Your task to perform on an android device: add a contact in the contacts app Image 0: 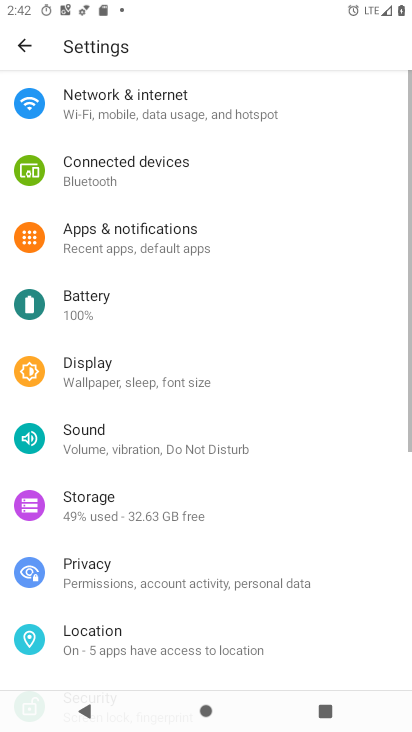
Step 0: press home button
Your task to perform on an android device: add a contact in the contacts app Image 1: 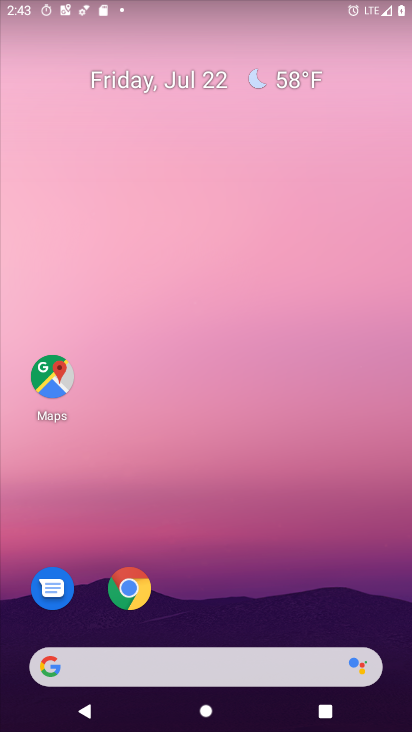
Step 1: drag from (203, 613) to (231, 23)
Your task to perform on an android device: add a contact in the contacts app Image 2: 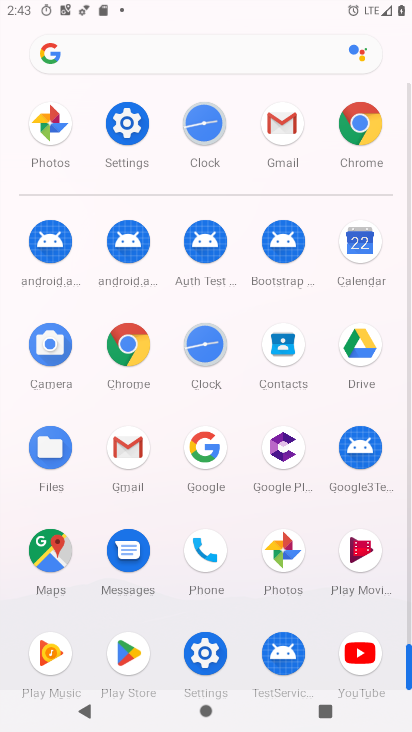
Step 2: click (274, 346)
Your task to perform on an android device: add a contact in the contacts app Image 3: 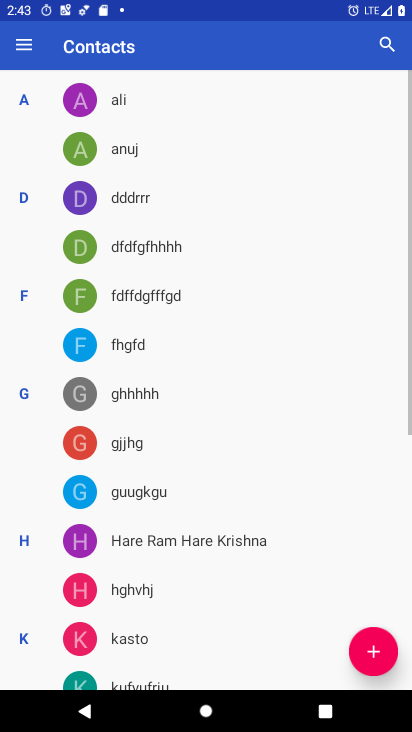
Step 3: click (389, 643)
Your task to perform on an android device: add a contact in the contacts app Image 4: 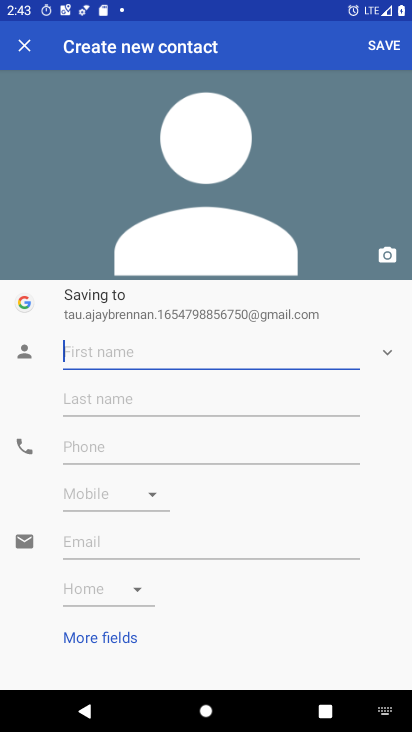
Step 4: type "nmmd"
Your task to perform on an android device: add a contact in the contacts app Image 5: 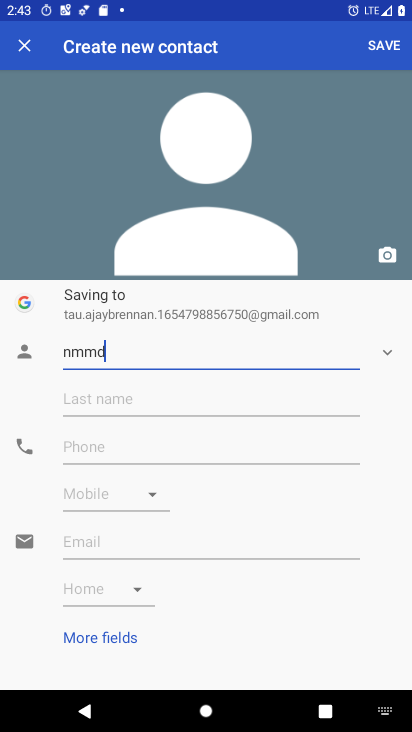
Step 5: click (190, 452)
Your task to perform on an android device: add a contact in the contacts app Image 6: 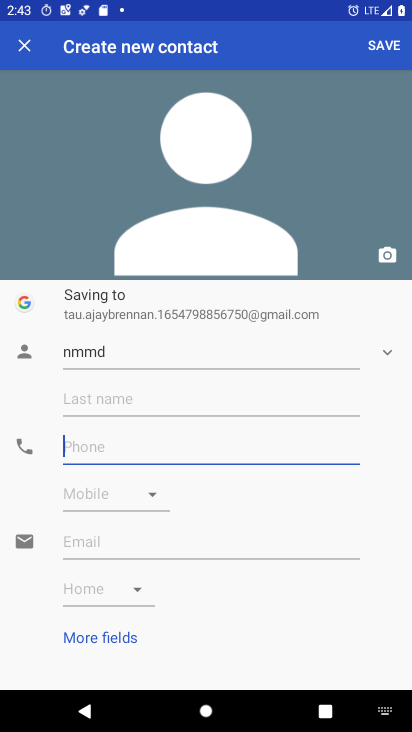
Step 6: type "22209"
Your task to perform on an android device: add a contact in the contacts app Image 7: 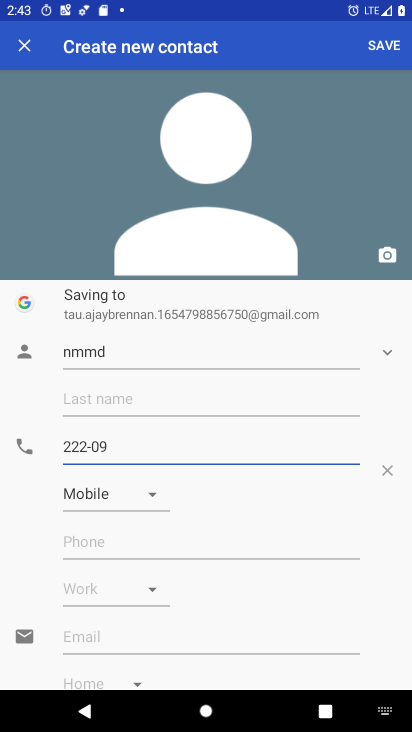
Step 7: click (390, 40)
Your task to perform on an android device: add a contact in the contacts app Image 8: 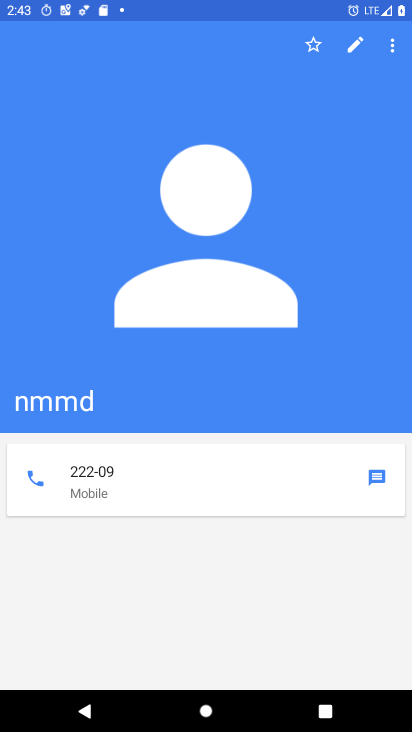
Step 8: task complete